Your task to perform on an android device: show emergency info Image 0: 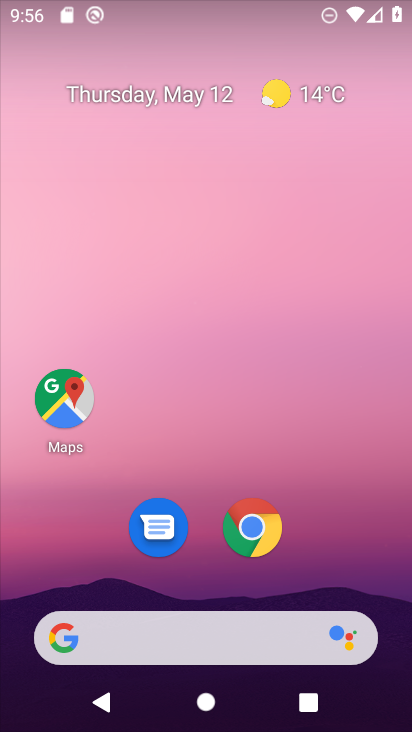
Step 0: drag from (362, 580) to (315, 0)
Your task to perform on an android device: show emergency info Image 1: 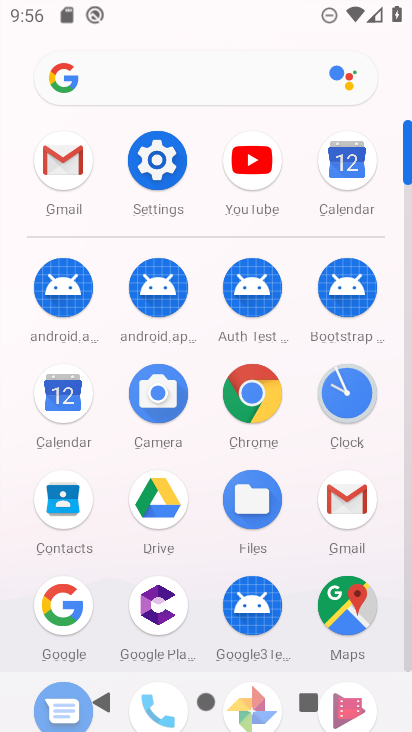
Step 1: click (151, 171)
Your task to perform on an android device: show emergency info Image 2: 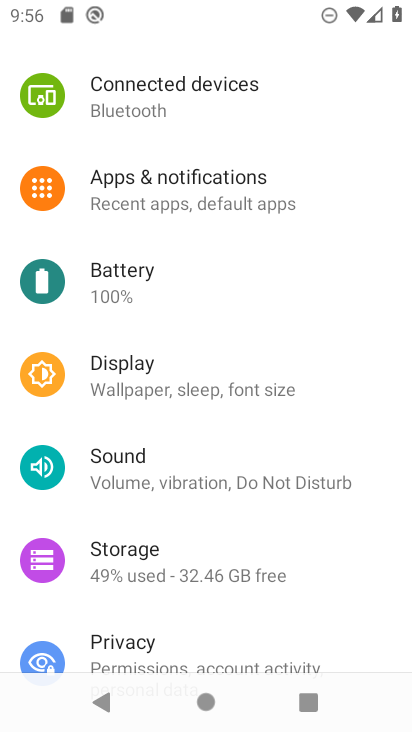
Step 2: drag from (222, 445) to (272, 19)
Your task to perform on an android device: show emergency info Image 3: 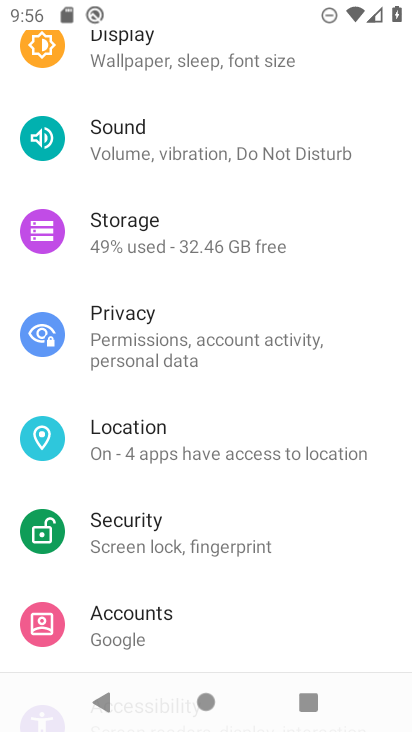
Step 3: drag from (276, 543) to (314, 294)
Your task to perform on an android device: show emergency info Image 4: 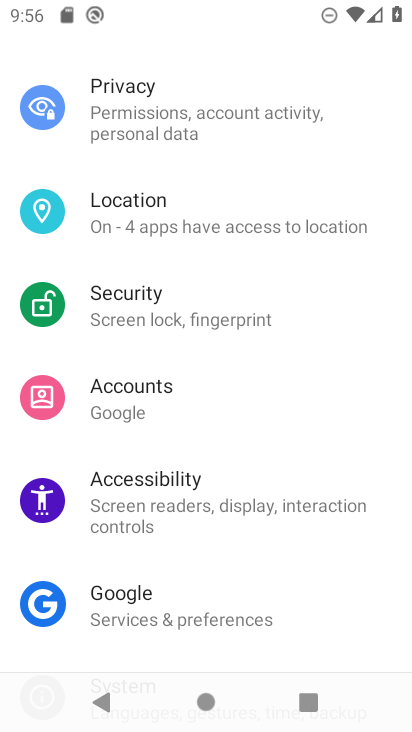
Step 4: drag from (285, 661) to (309, 221)
Your task to perform on an android device: show emergency info Image 5: 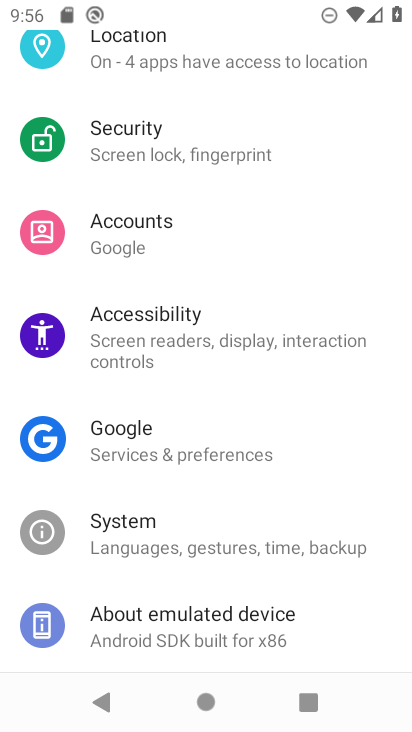
Step 5: click (308, 610)
Your task to perform on an android device: show emergency info Image 6: 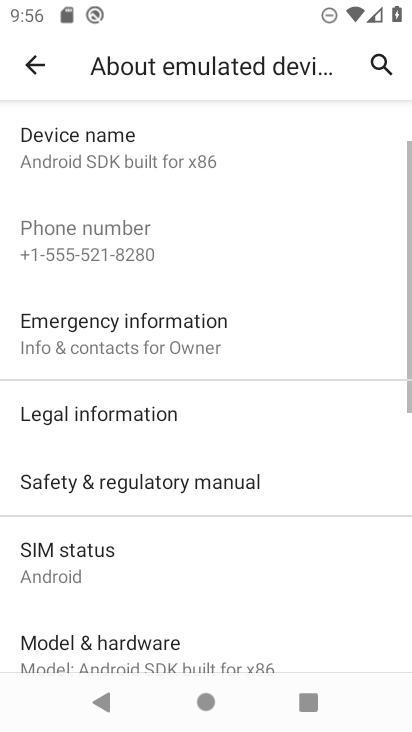
Step 6: task complete